Your task to perform on an android device: change keyboard looks Image 0: 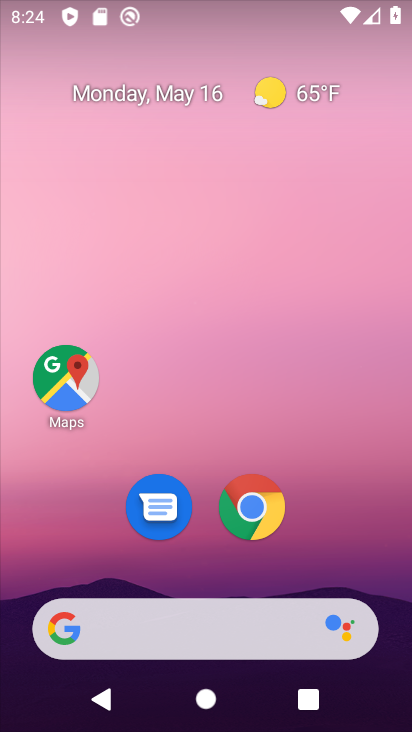
Step 0: drag from (245, 576) to (209, 17)
Your task to perform on an android device: change keyboard looks Image 1: 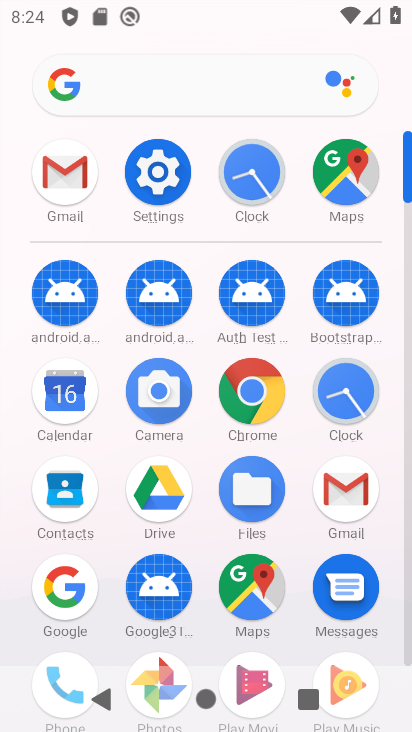
Step 1: click (173, 166)
Your task to perform on an android device: change keyboard looks Image 2: 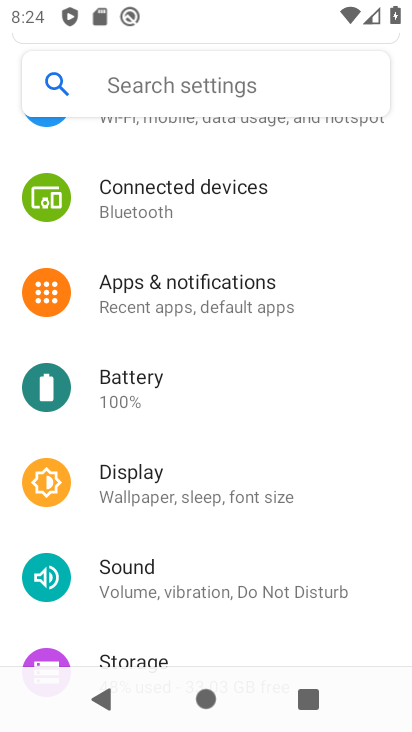
Step 2: drag from (177, 490) to (124, 152)
Your task to perform on an android device: change keyboard looks Image 3: 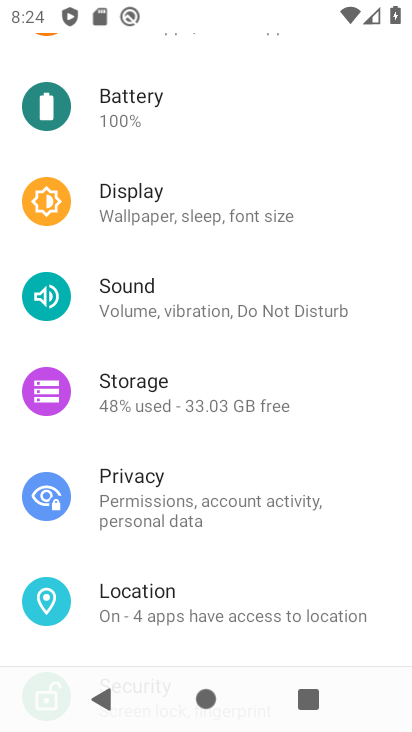
Step 3: drag from (166, 491) to (389, 450)
Your task to perform on an android device: change keyboard looks Image 4: 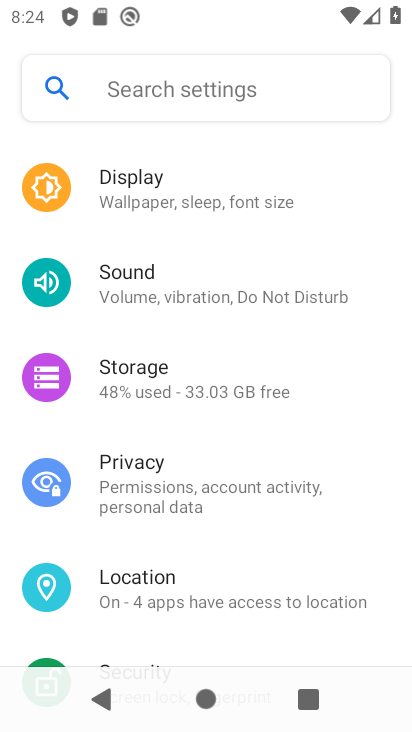
Step 4: drag from (128, 603) to (106, 256)
Your task to perform on an android device: change keyboard looks Image 5: 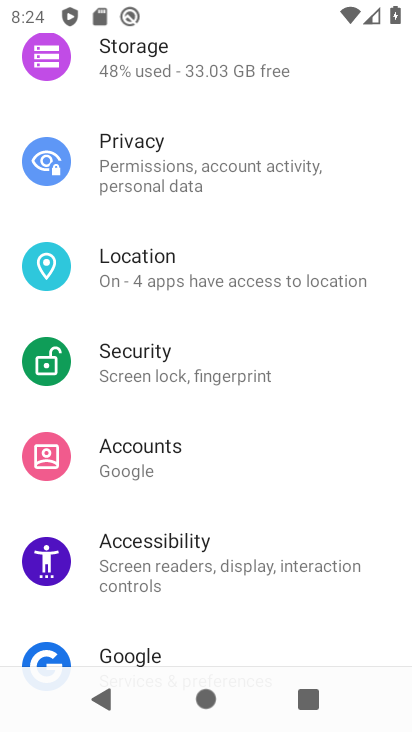
Step 5: drag from (143, 453) to (116, 10)
Your task to perform on an android device: change keyboard looks Image 6: 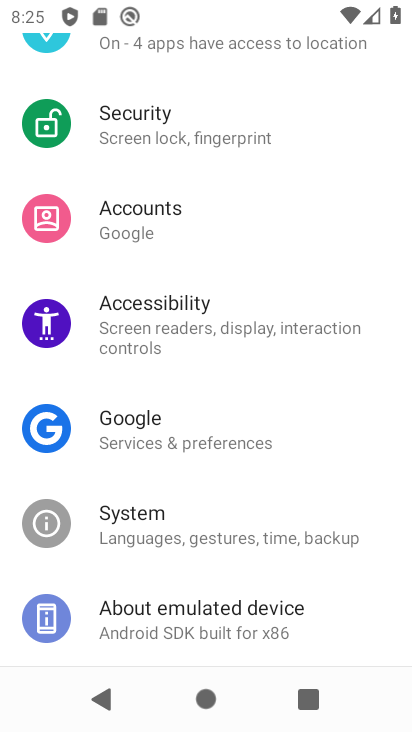
Step 6: click (135, 525)
Your task to perform on an android device: change keyboard looks Image 7: 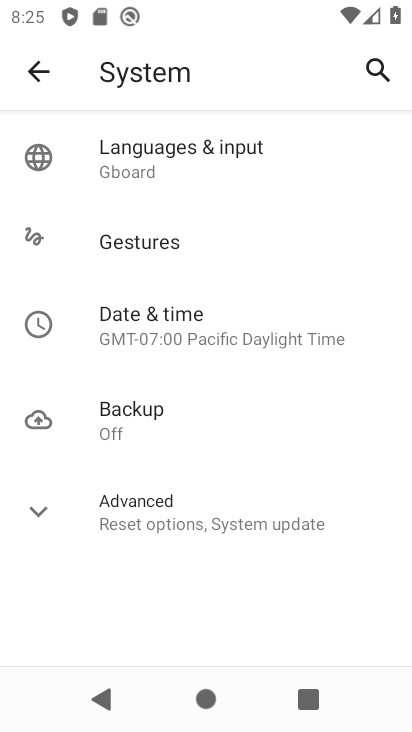
Step 7: click (143, 150)
Your task to perform on an android device: change keyboard looks Image 8: 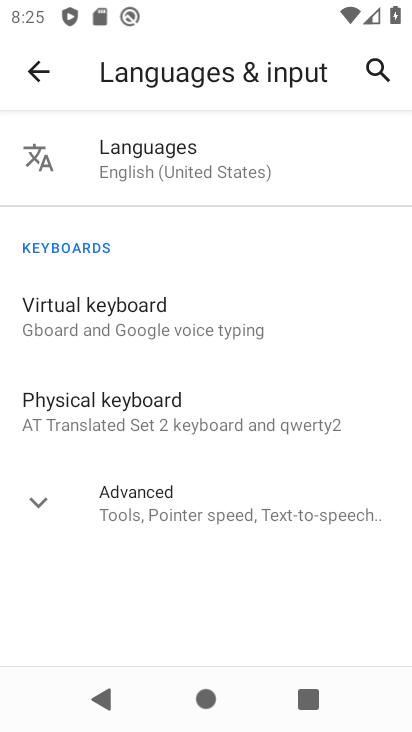
Step 8: click (134, 337)
Your task to perform on an android device: change keyboard looks Image 9: 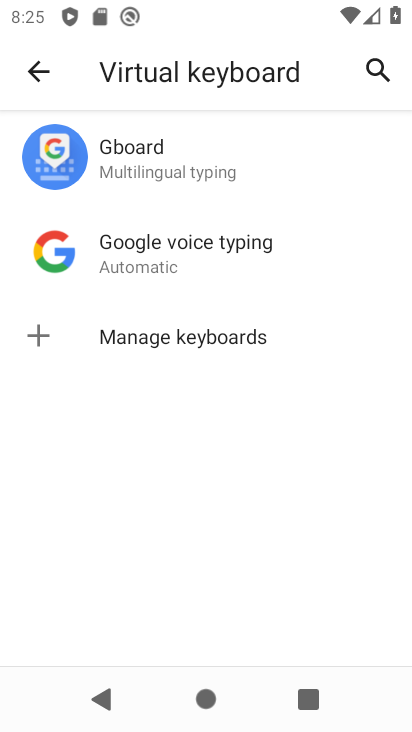
Step 9: click (165, 158)
Your task to perform on an android device: change keyboard looks Image 10: 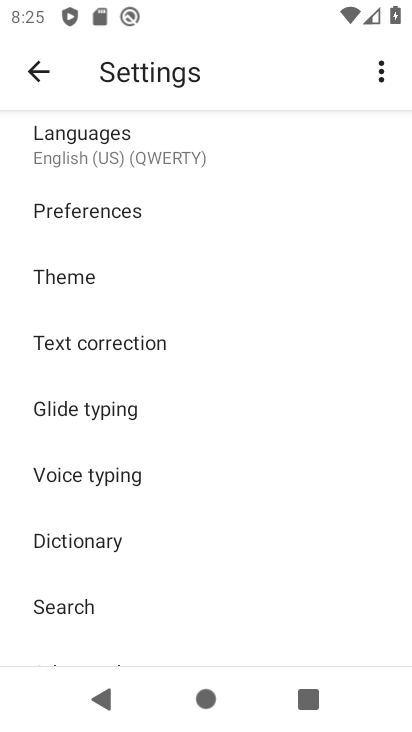
Step 10: click (30, 275)
Your task to perform on an android device: change keyboard looks Image 11: 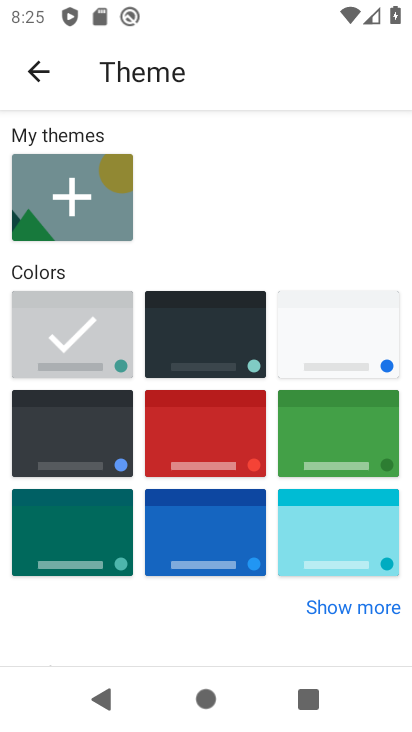
Step 11: click (172, 315)
Your task to perform on an android device: change keyboard looks Image 12: 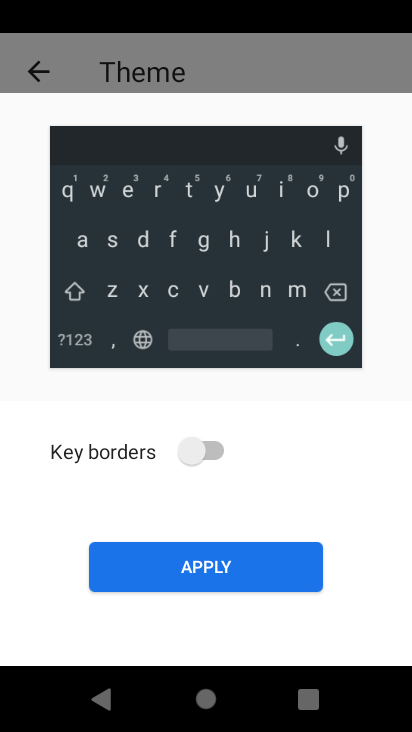
Step 12: click (234, 584)
Your task to perform on an android device: change keyboard looks Image 13: 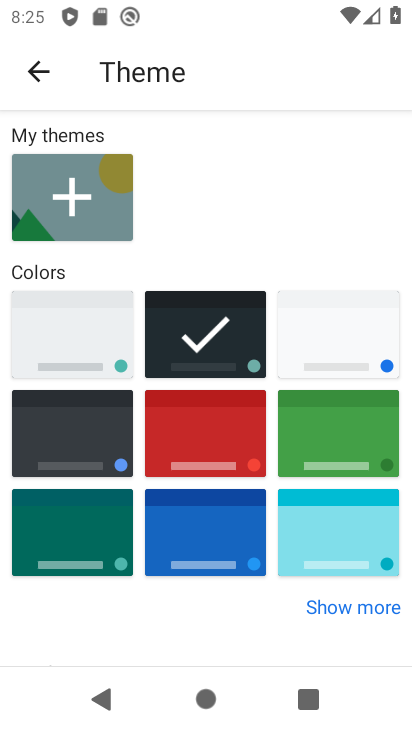
Step 13: task complete